Your task to perform on an android device: Open network settings Image 0: 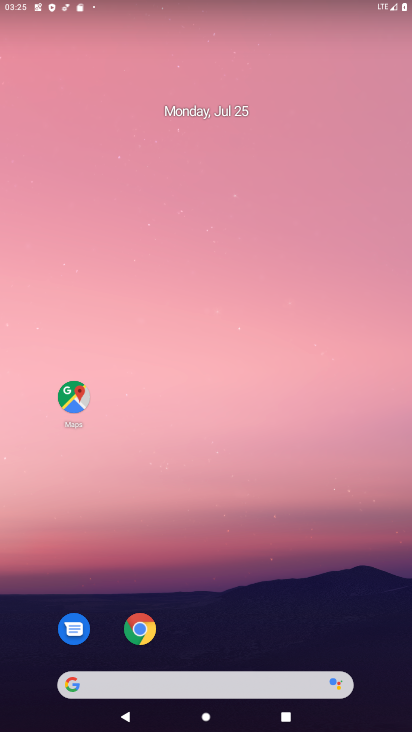
Step 0: drag from (227, 651) to (214, 6)
Your task to perform on an android device: Open network settings Image 1: 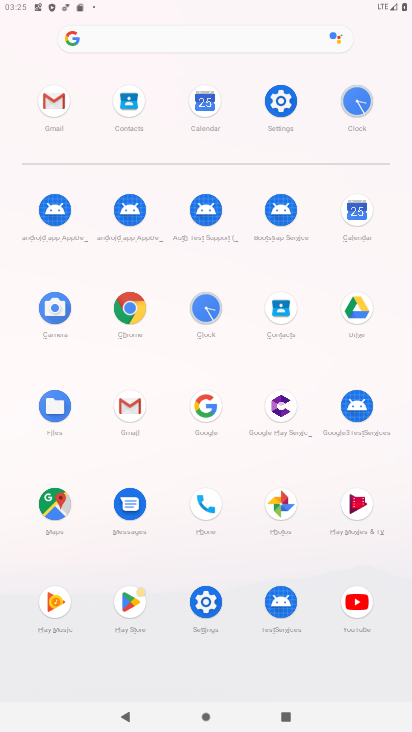
Step 1: click (280, 109)
Your task to perform on an android device: Open network settings Image 2: 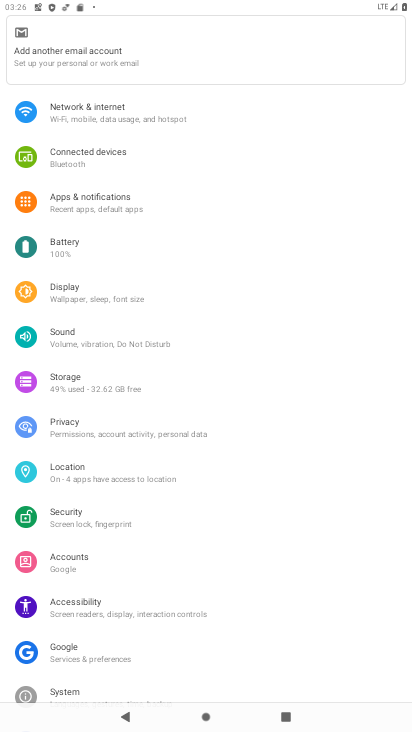
Step 2: click (71, 111)
Your task to perform on an android device: Open network settings Image 3: 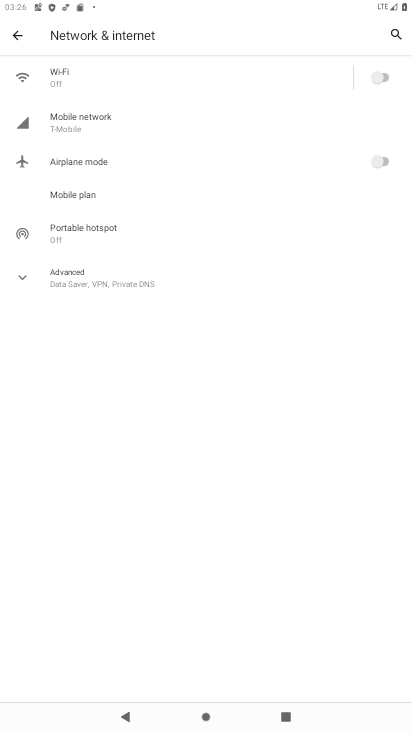
Step 3: click (100, 119)
Your task to perform on an android device: Open network settings Image 4: 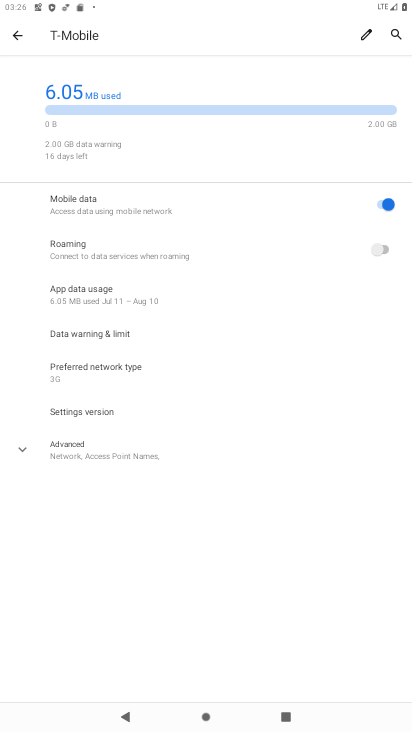
Step 4: click (17, 455)
Your task to perform on an android device: Open network settings Image 5: 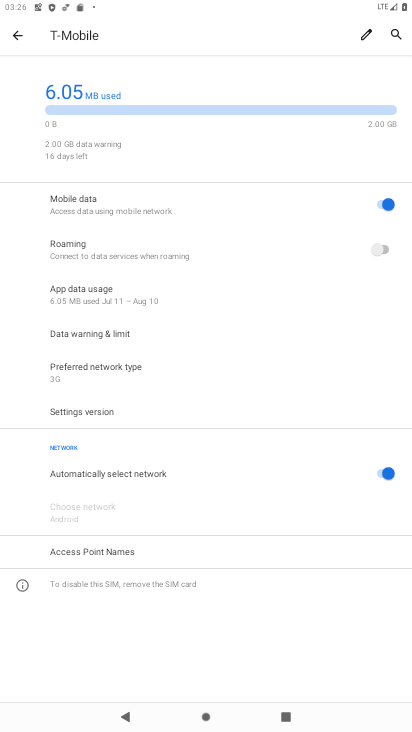
Step 5: task complete